Your task to perform on an android device: turn off data saver in the chrome app Image 0: 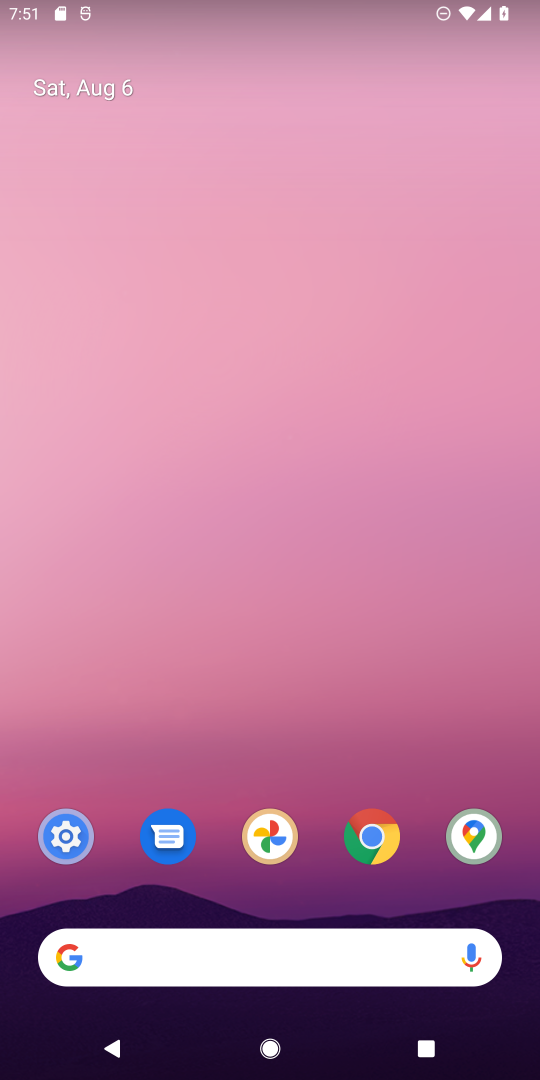
Step 0: drag from (312, 939) to (348, 389)
Your task to perform on an android device: turn off data saver in the chrome app Image 1: 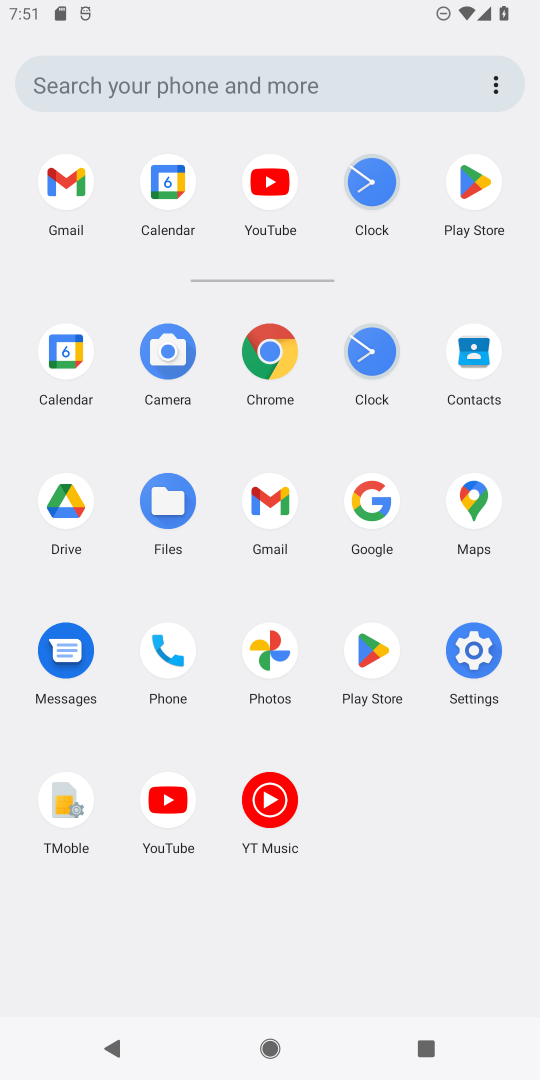
Step 1: click (260, 369)
Your task to perform on an android device: turn off data saver in the chrome app Image 2: 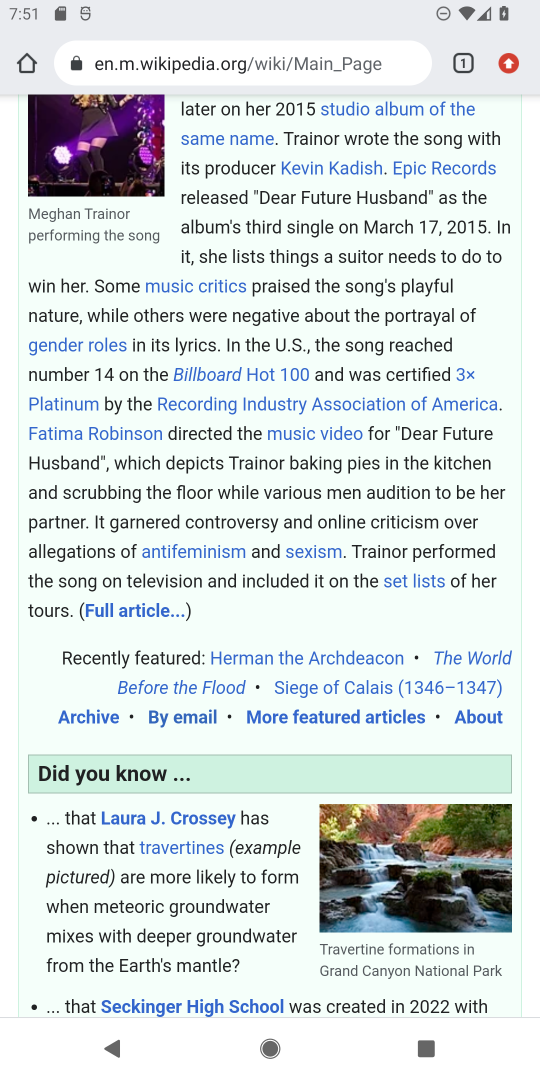
Step 2: click (507, 64)
Your task to perform on an android device: turn off data saver in the chrome app Image 3: 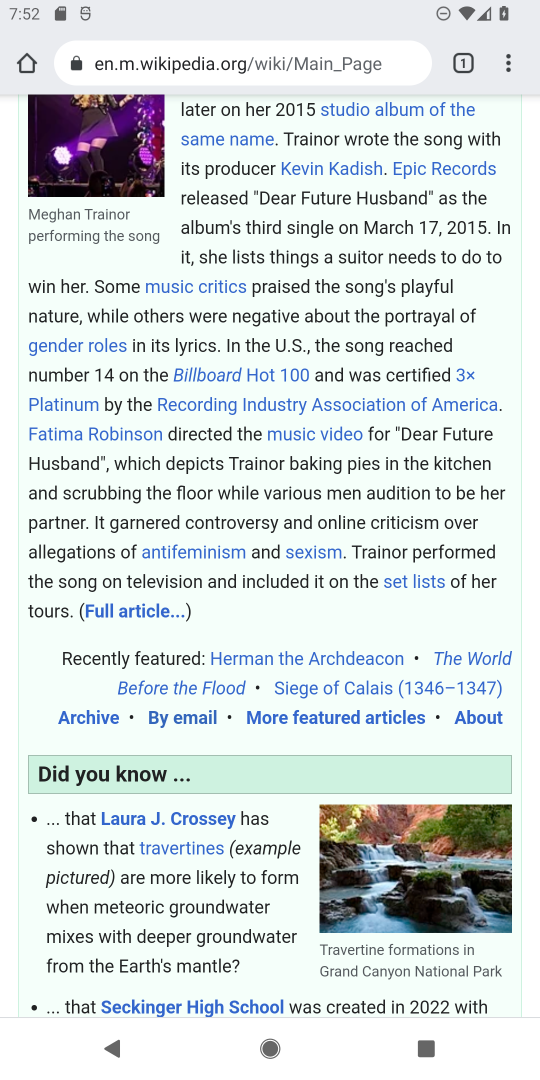
Step 3: click (507, 64)
Your task to perform on an android device: turn off data saver in the chrome app Image 4: 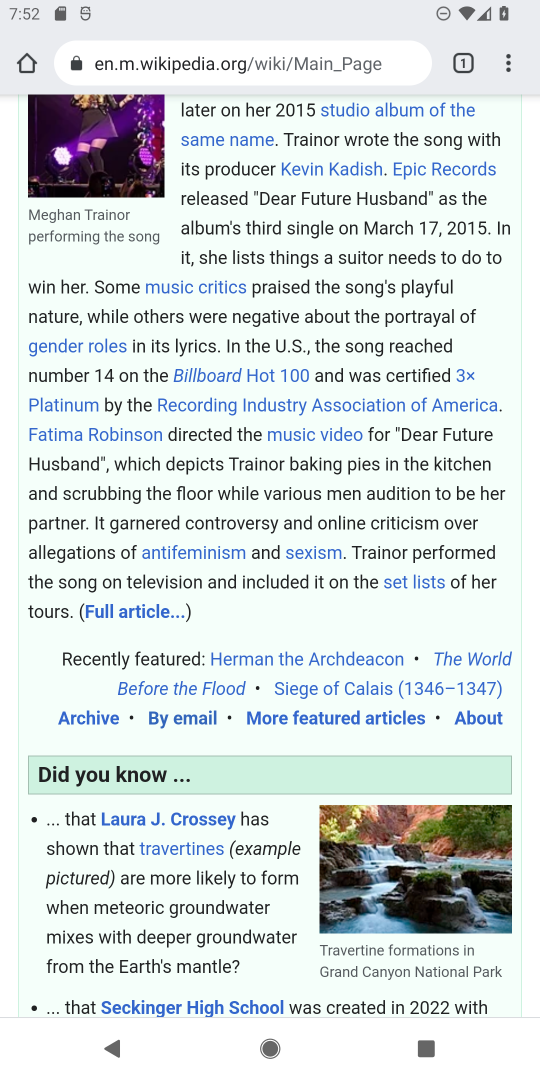
Step 4: click (507, 64)
Your task to perform on an android device: turn off data saver in the chrome app Image 5: 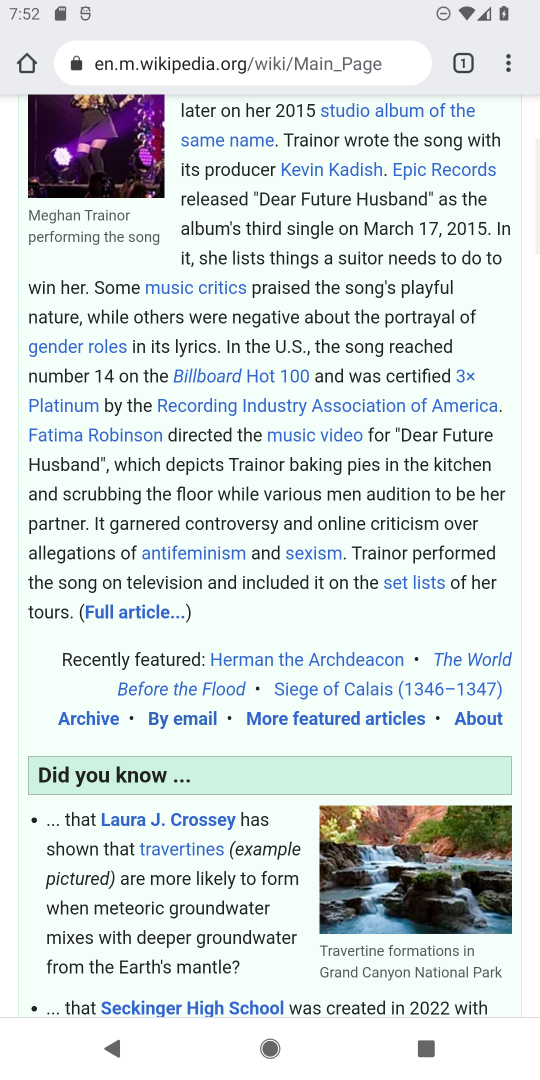
Step 5: click (512, 61)
Your task to perform on an android device: turn off data saver in the chrome app Image 6: 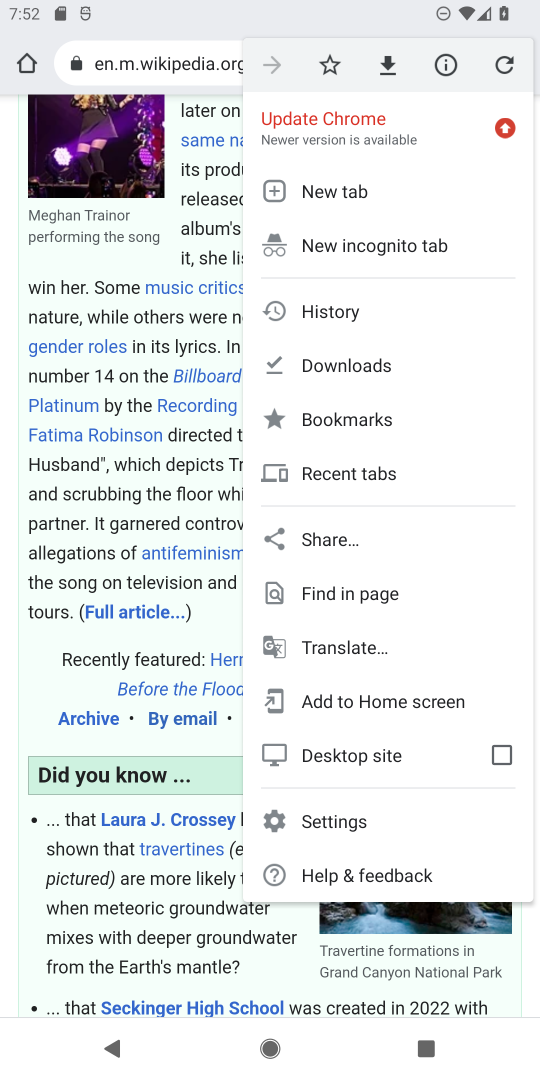
Step 6: click (343, 818)
Your task to perform on an android device: turn off data saver in the chrome app Image 7: 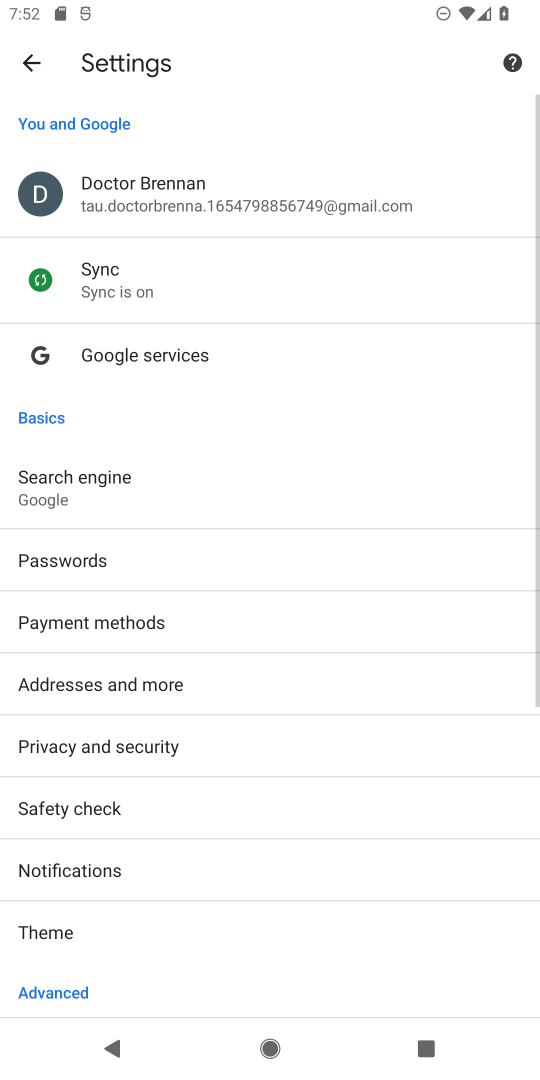
Step 7: drag from (129, 929) to (158, 471)
Your task to perform on an android device: turn off data saver in the chrome app Image 8: 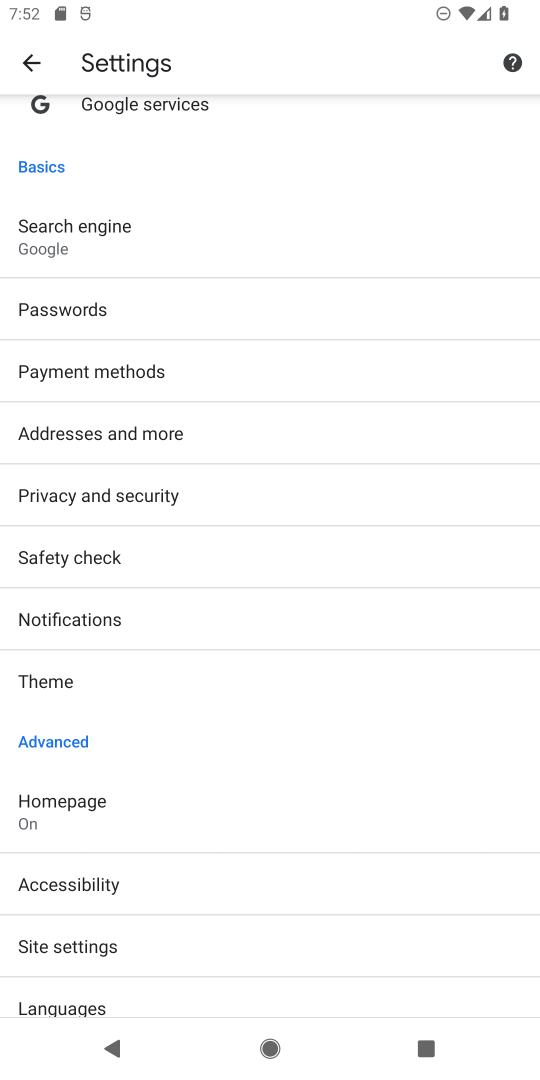
Step 8: drag from (72, 968) to (93, 600)
Your task to perform on an android device: turn off data saver in the chrome app Image 9: 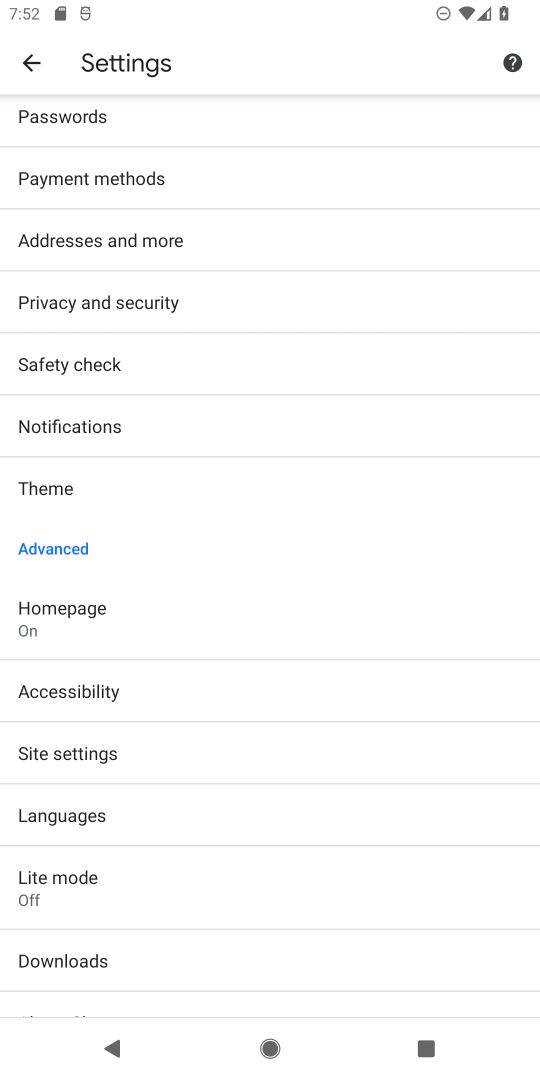
Step 9: click (35, 883)
Your task to perform on an android device: turn off data saver in the chrome app Image 10: 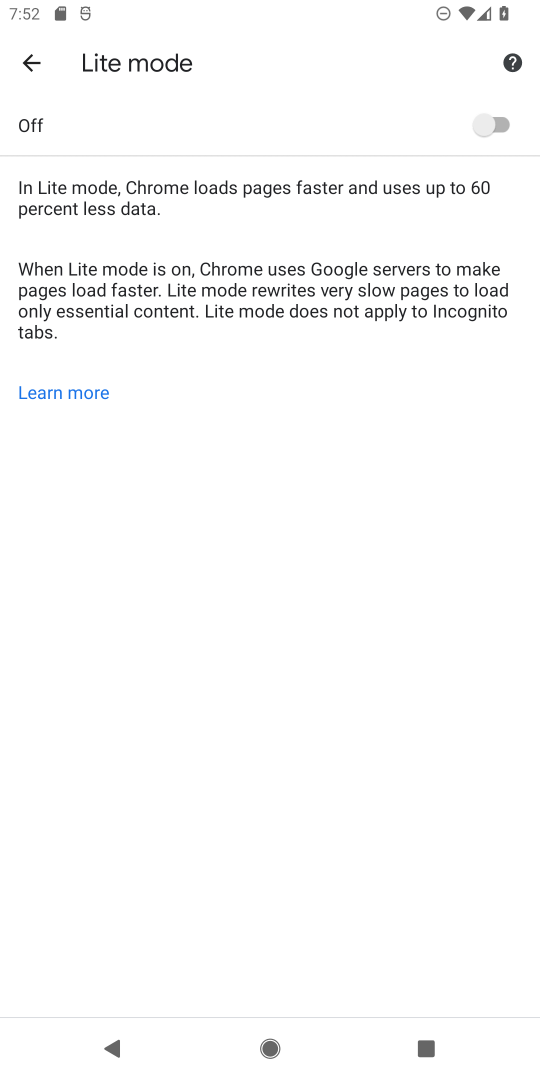
Step 10: task complete